Your task to perform on an android device: toggle priority inbox in the gmail app Image 0: 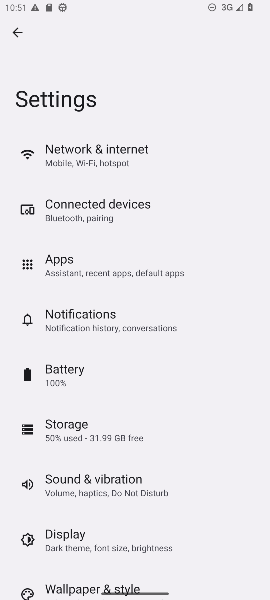
Step 0: press home button
Your task to perform on an android device: toggle priority inbox in the gmail app Image 1: 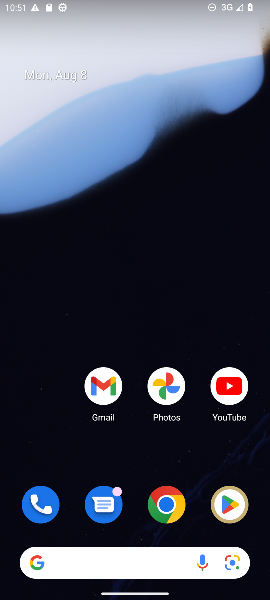
Step 1: drag from (121, 438) to (153, 61)
Your task to perform on an android device: toggle priority inbox in the gmail app Image 2: 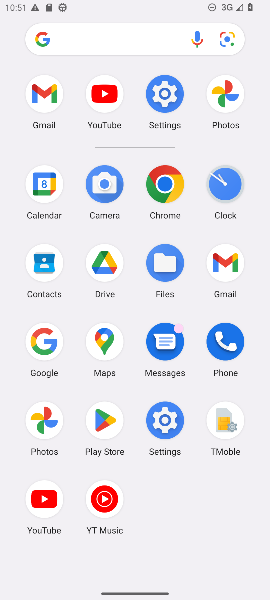
Step 2: click (232, 248)
Your task to perform on an android device: toggle priority inbox in the gmail app Image 3: 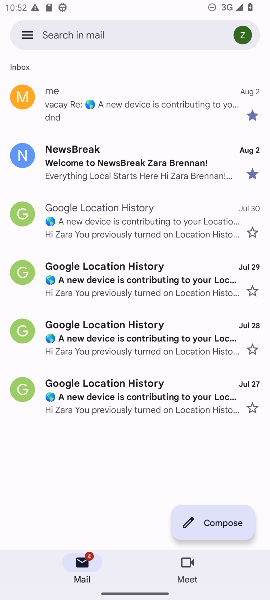
Step 3: click (22, 35)
Your task to perform on an android device: toggle priority inbox in the gmail app Image 4: 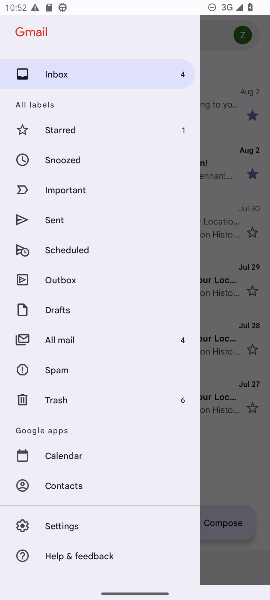
Step 4: click (57, 529)
Your task to perform on an android device: toggle priority inbox in the gmail app Image 5: 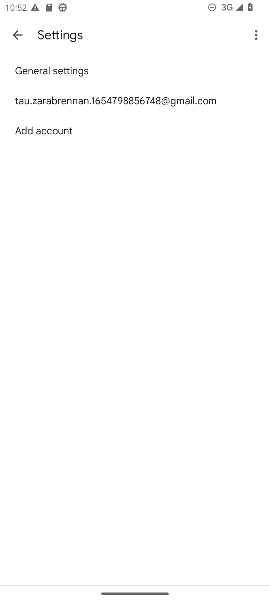
Step 5: click (57, 102)
Your task to perform on an android device: toggle priority inbox in the gmail app Image 6: 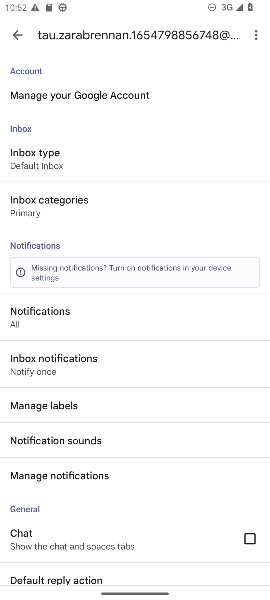
Step 6: click (53, 162)
Your task to perform on an android device: toggle priority inbox in the gmail app Image 7: 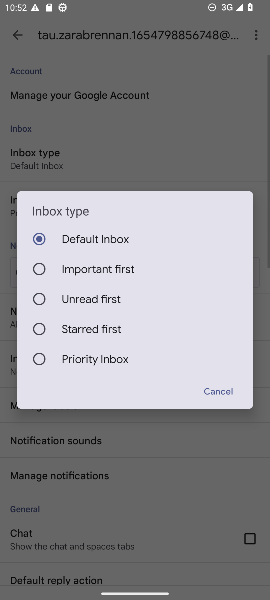
Step 7: click (59, 361)
Your task to perform on an android device: toggle priority inbox in the gmail app Image 8: 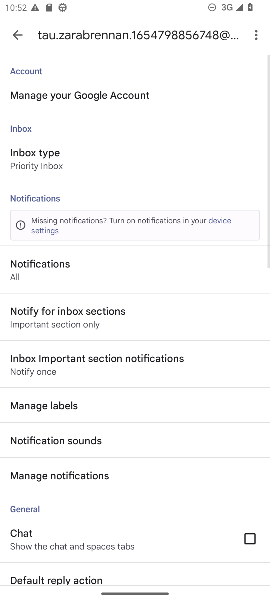
Step 8: task complete